Your task to perform on an android device: turn off improve location accuracy Image 0: 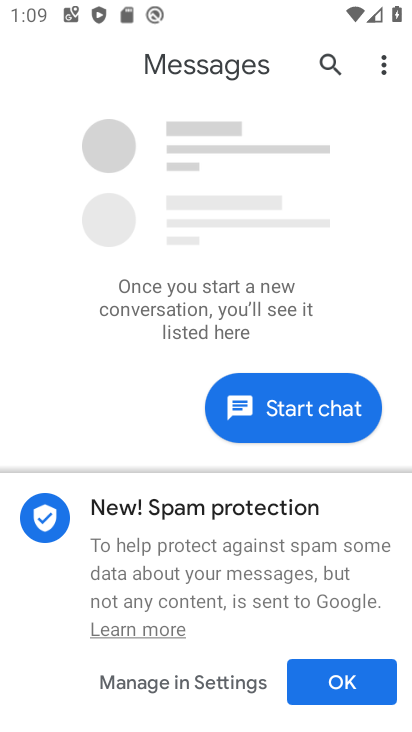
Step 0: press home button
Your task to perform on an android device: turn off improve location accuracy Image 1: 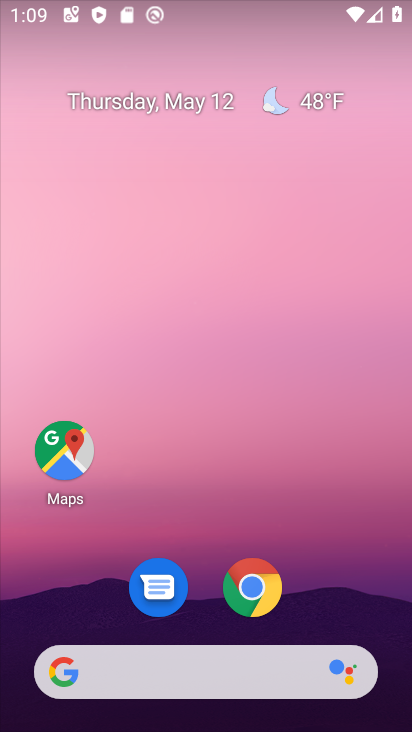
Step 1: drag from (193, 584) to (316, 97)
Your task to perform on an android device: turn off improve location accuracy Image 2: 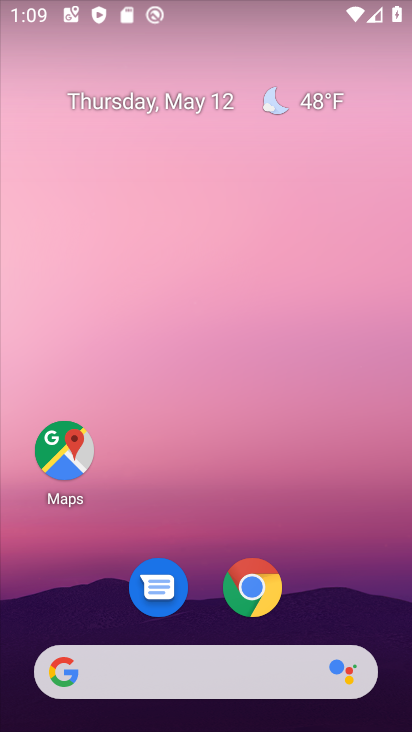
Step 2: drag from (278, 508) to (252, 81)
Your task to perform on an android device: turn off improve location accuracy Image 3: 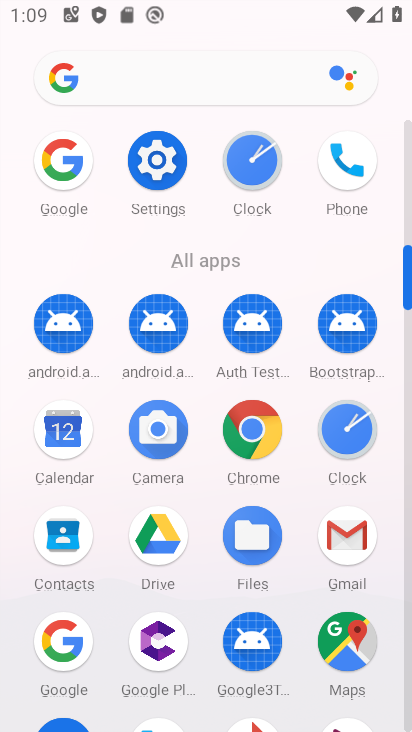
Step 3: click (162, 166)
Your task to perform on an android device: turn off improve location accuracy Image 4: 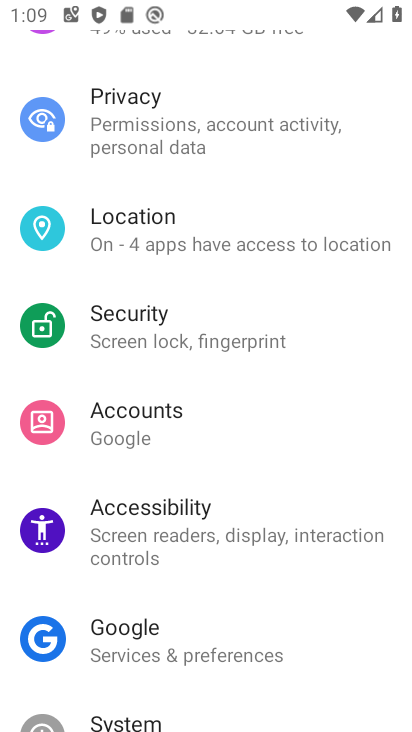
Step 4: drag from (231, 247) to (189, 589)
Your task to perform on an android device: turn off improve location accuracy Image 5: 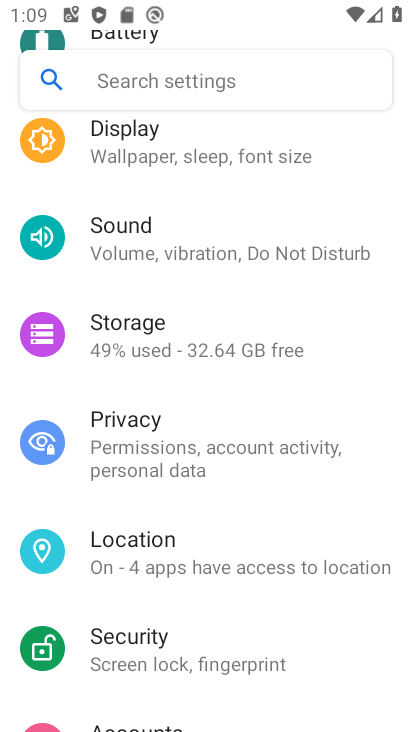
Step 5: click (199, 560)
Your task to perform on an android device: turn off improve location accuracy Image 6: 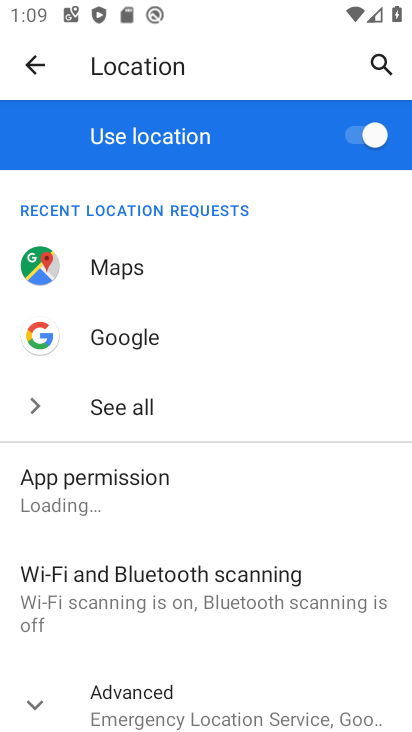
Step 6: drag from (135, 571) to (122, 356)
Your task to perform on an android device: turn off improve location accuracy Image 7: 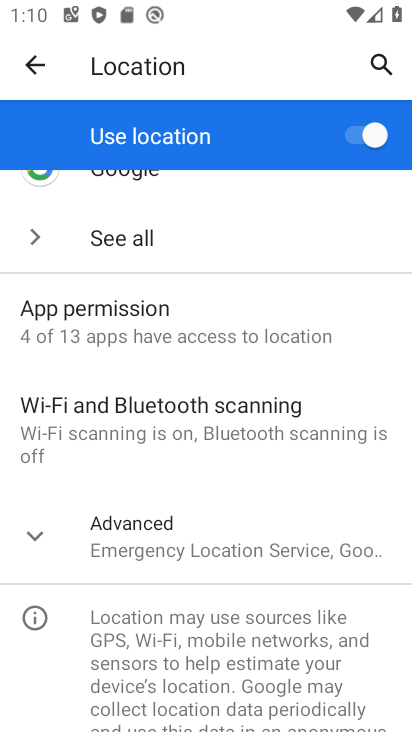
Step 7: click (172, 552)
Your task to perform on an android device: turn off improve location accuracy Image 8: 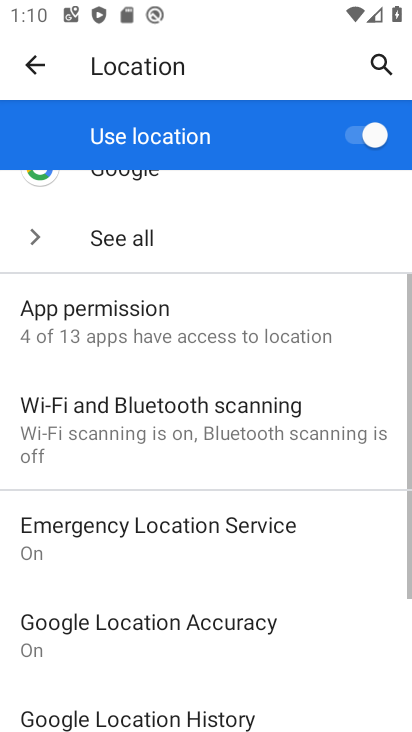
Step 8: drag from (211, 575) to (225, 295)
Your task to perform on an android device: turn off improve location accuracy Image 9: 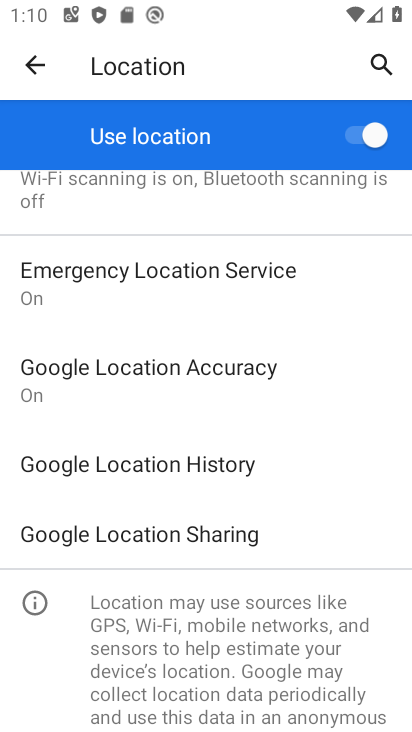
Step 9: click (256, 380)
Your task to perform on an android device: turn off improve location accuracy Image 10: 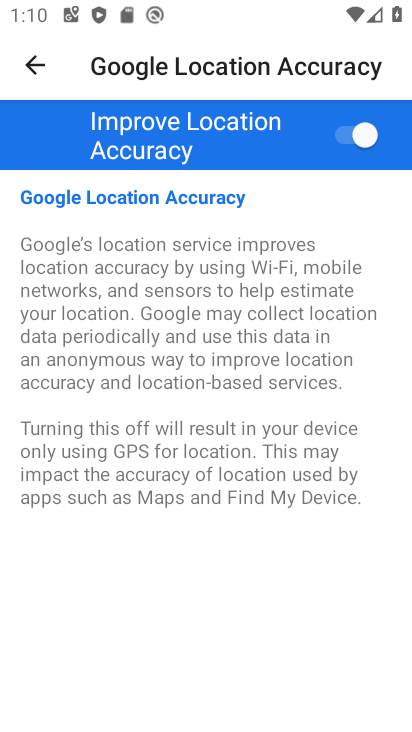
Step 10: click (333, 134)
Your task to perform on an android device: turn off improve location accuracy Image 11: 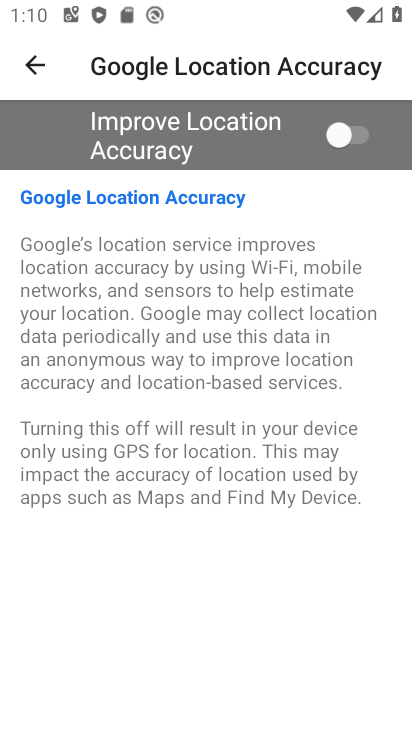
Step 11: task complete